Your task to perform on an android device: change the clock display to show seconds Image 0: 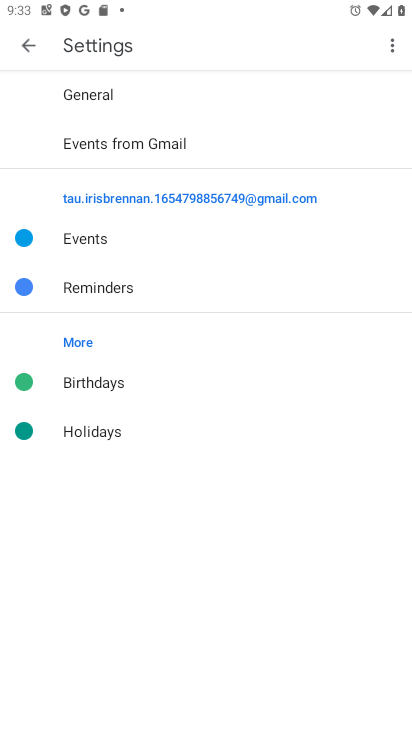
Step 0: press home button
Your task to perform on an android device: change the clock display to show seconds Image 1: 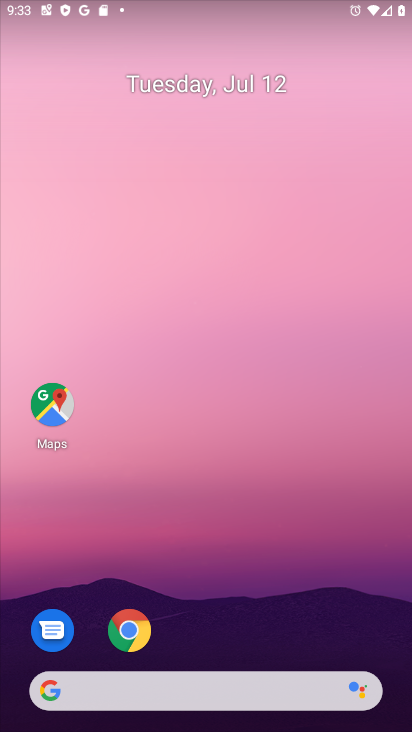
Step 1: drag from (228, 587) to (249, 80)
Your task to perform on an android device: change the clock display to show seconds Image 2: 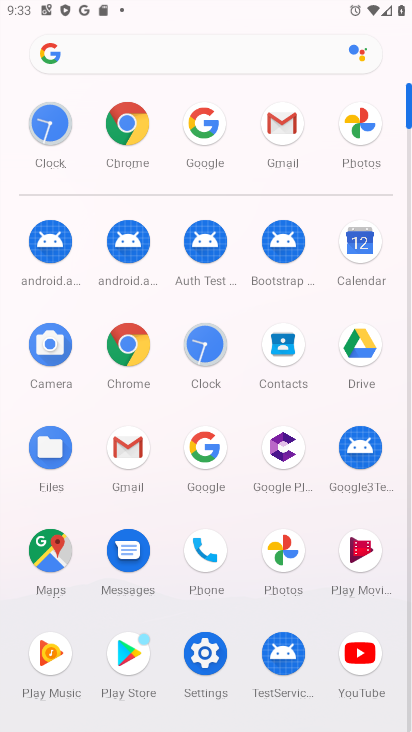
Step 2: click (51, 130)
Your task to perform on an android device: change the clock display to show seconds Image 3: 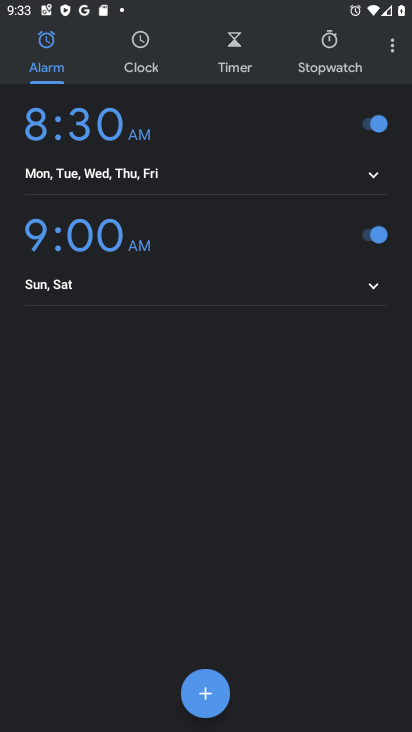
Step 3: click (390, 40)
Your task to perform on an android device: change the clock display to show seconds Image 4: 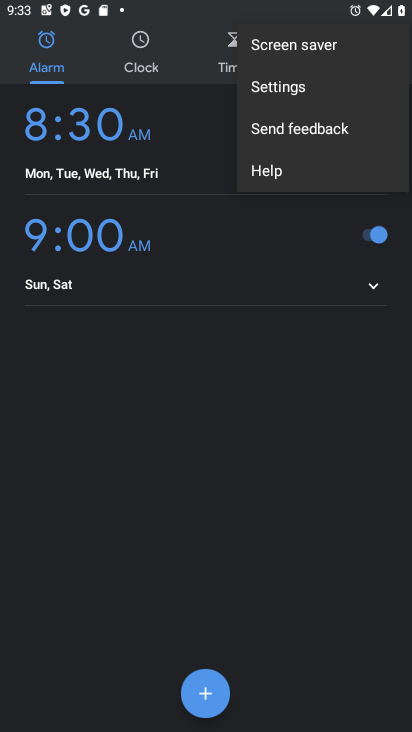
Step 4: click (284, 87)
Your task to perform on an android device: change the clock display to show seconds Image 5: 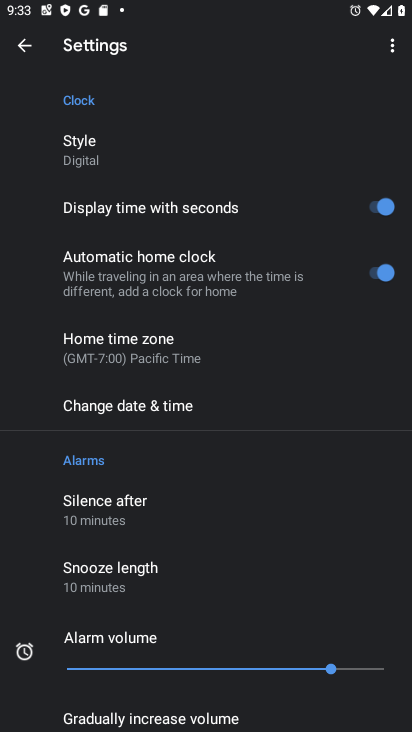
Step 5: click (385, 208)
Your task to perform on an android device: change the clock display to show seconds Image 6: 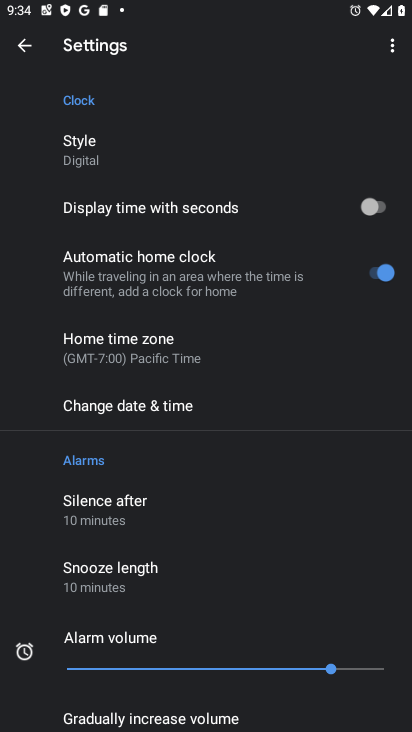
Step 6: task complete